Your task to perform on an android device: check storage Image 0: 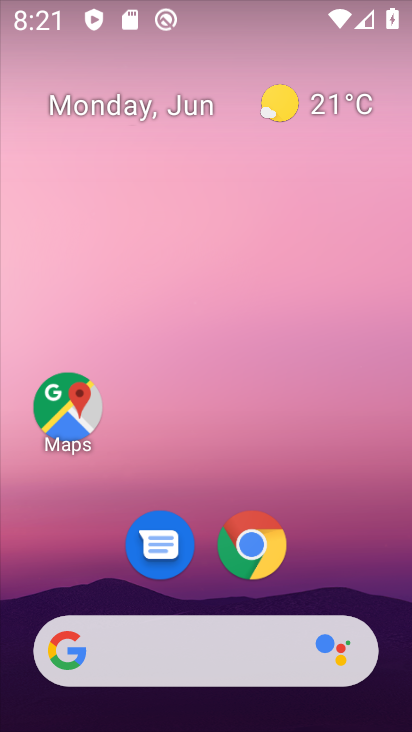
Step 0: drag from (297, 540) to (287, 75)
Your task to perform on an android device: check storage Image 1: 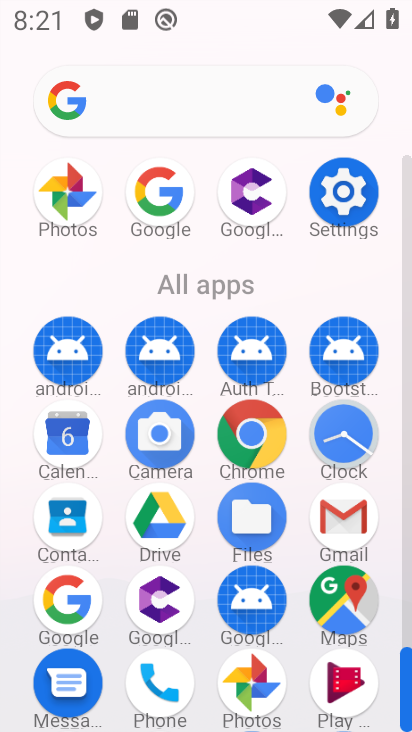
Step 1: click (341, 188)
Your task to perform on an android device: check storage Image 2: 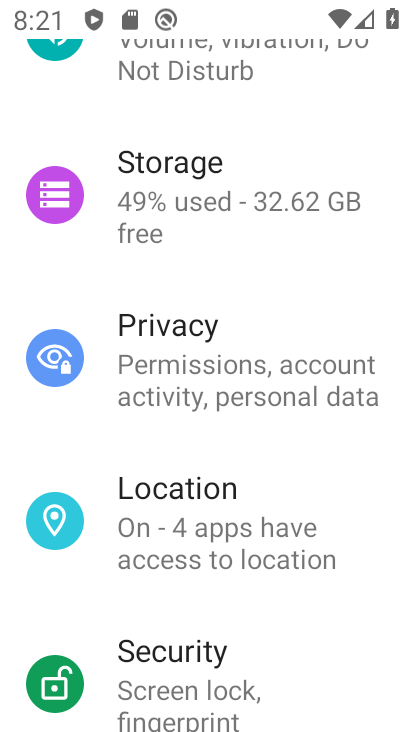
Step 2: click (188, 187)
Your task to perform on an android device: check storage Image 3: 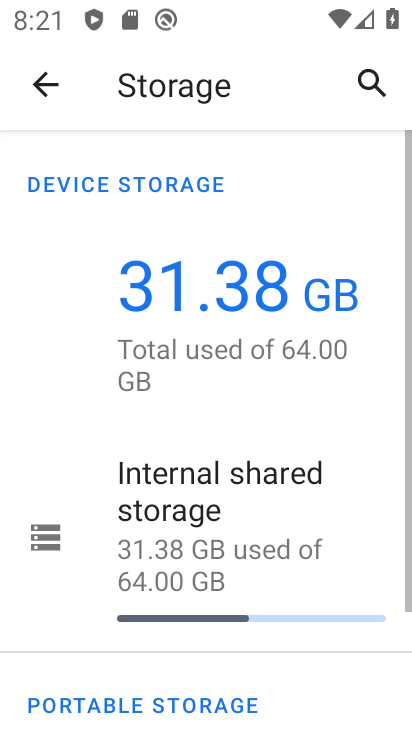
Step 3: task complete